Your task to perform on an android device: turn on priority inbox in the gmail app Image 0: 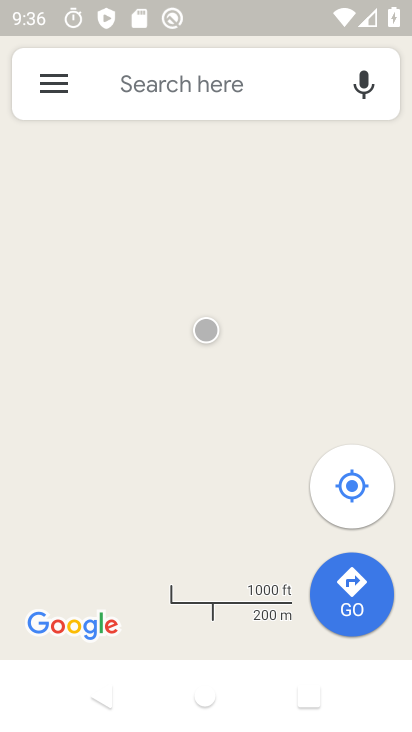
Step 0: press home button
Your task to perform on an android device: turn on priority inbox in the gmail app Image 1: 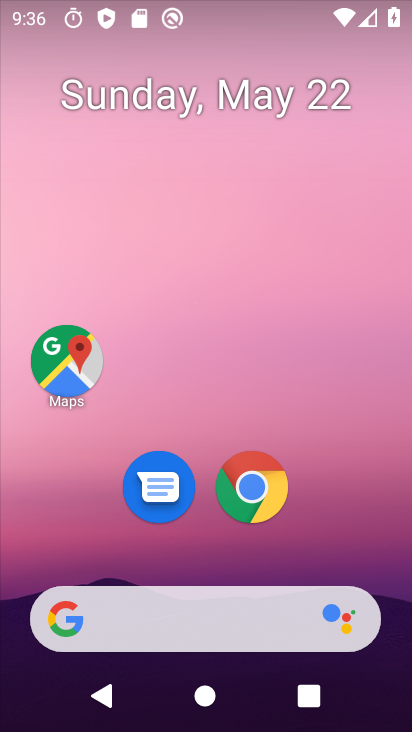
Step 1: drag from (221, 542) to (245, 52)
Your task to perform on an android device: turn on priority inbox in the gmail app Image 2: 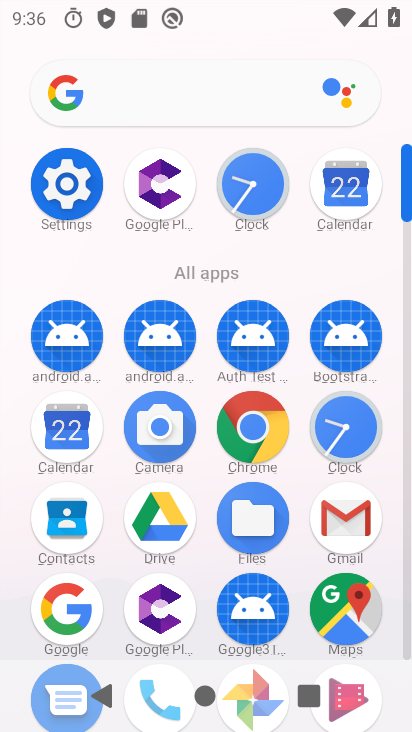
Step 2: click (335, 532)
Your task to perform on an android device: turn on priority inbox in the gmail app Image 3: 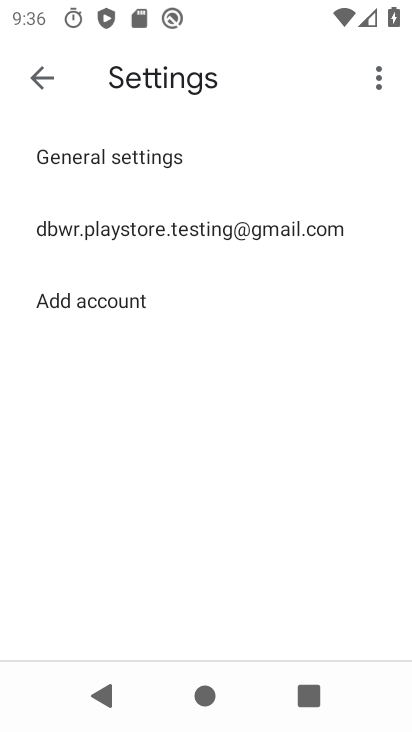
Step 3: click (152, 215)
Your task to perform on an android device: turn on priority inbox in the gmail app Image 4: 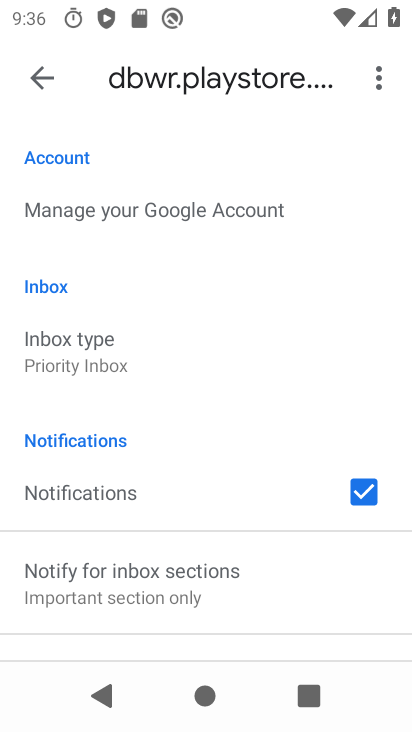
Step 4: click (92, 346)
Your task to perform on an android device: turn on priority inbox in the gmail app Image 5: 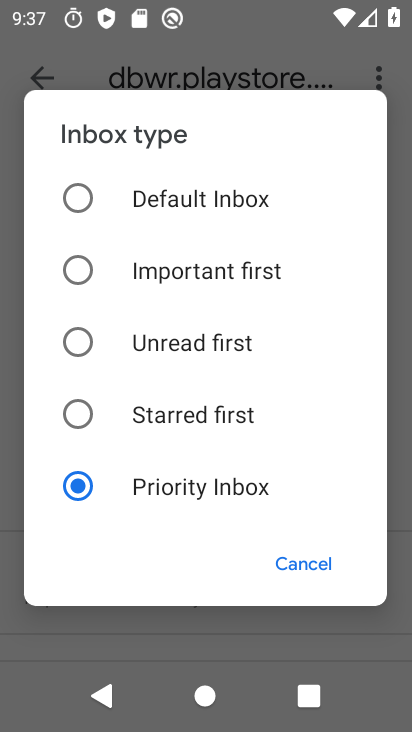
Step 5: task complete